Your task to perform on an android device: Search for Mexican restaurants on Maps Image 0: 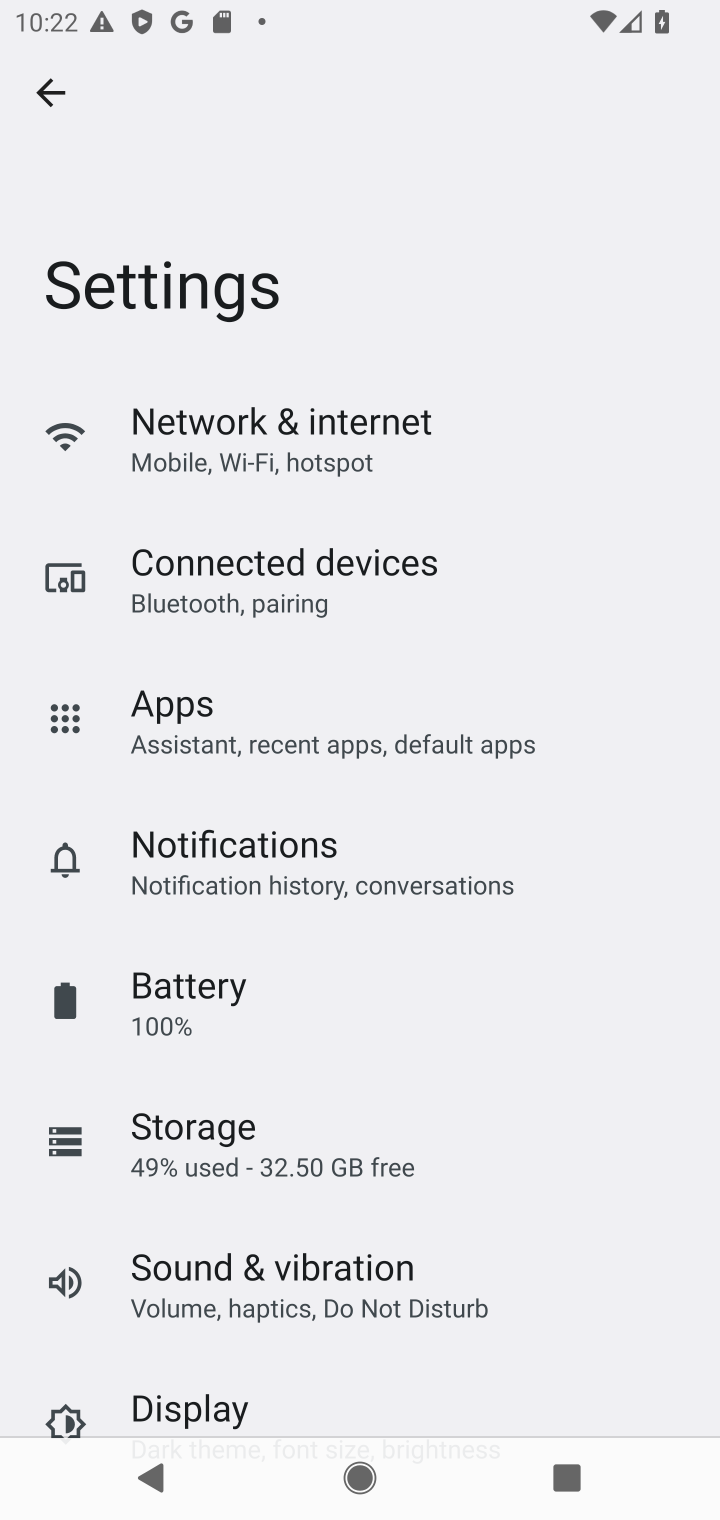
Step 0: press home button
Your task to perform on an android device: Search for Mexican restaurants on Maps Image 1: 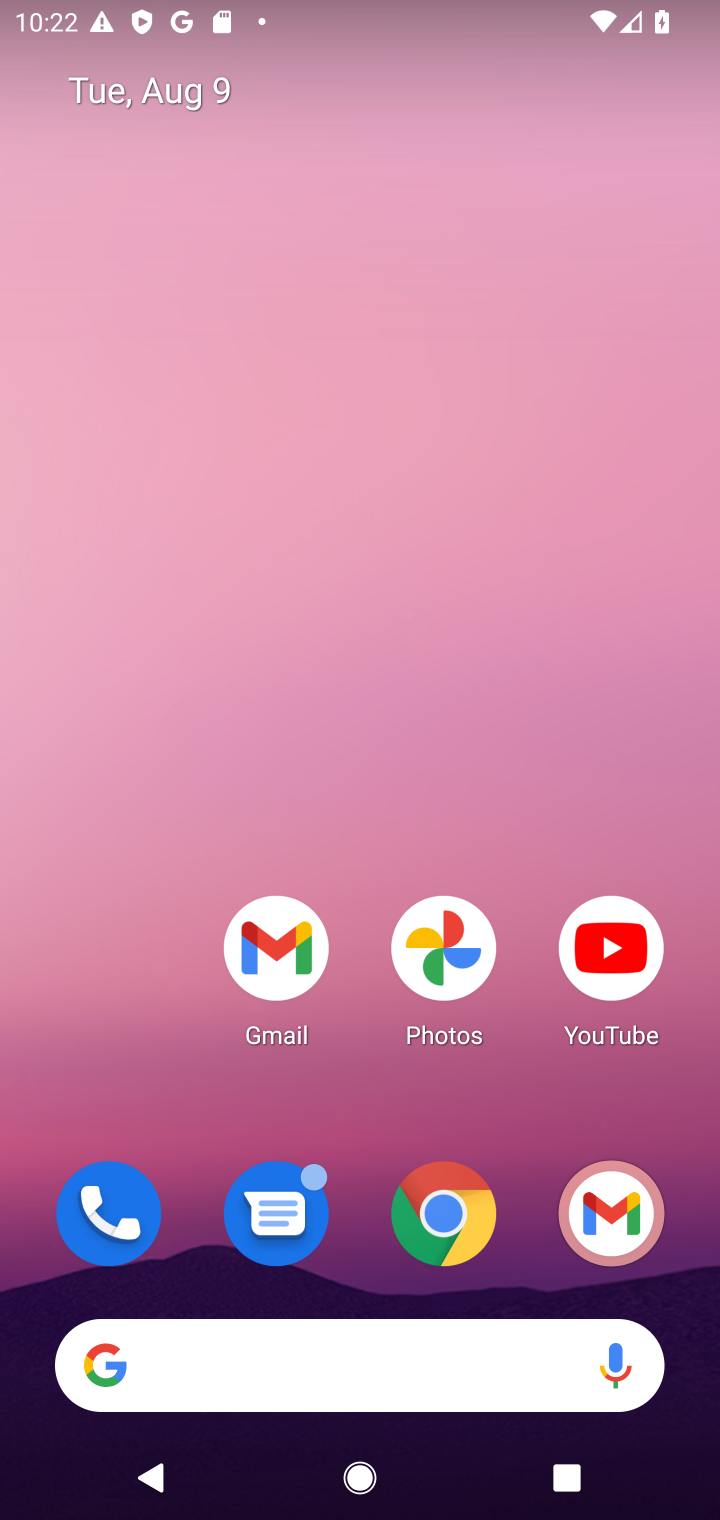
Step 1: drag from (408, 1279) to (376, 308)
Your task to perform on an android device: Search for Mexican restaurants on Maps Image 2: 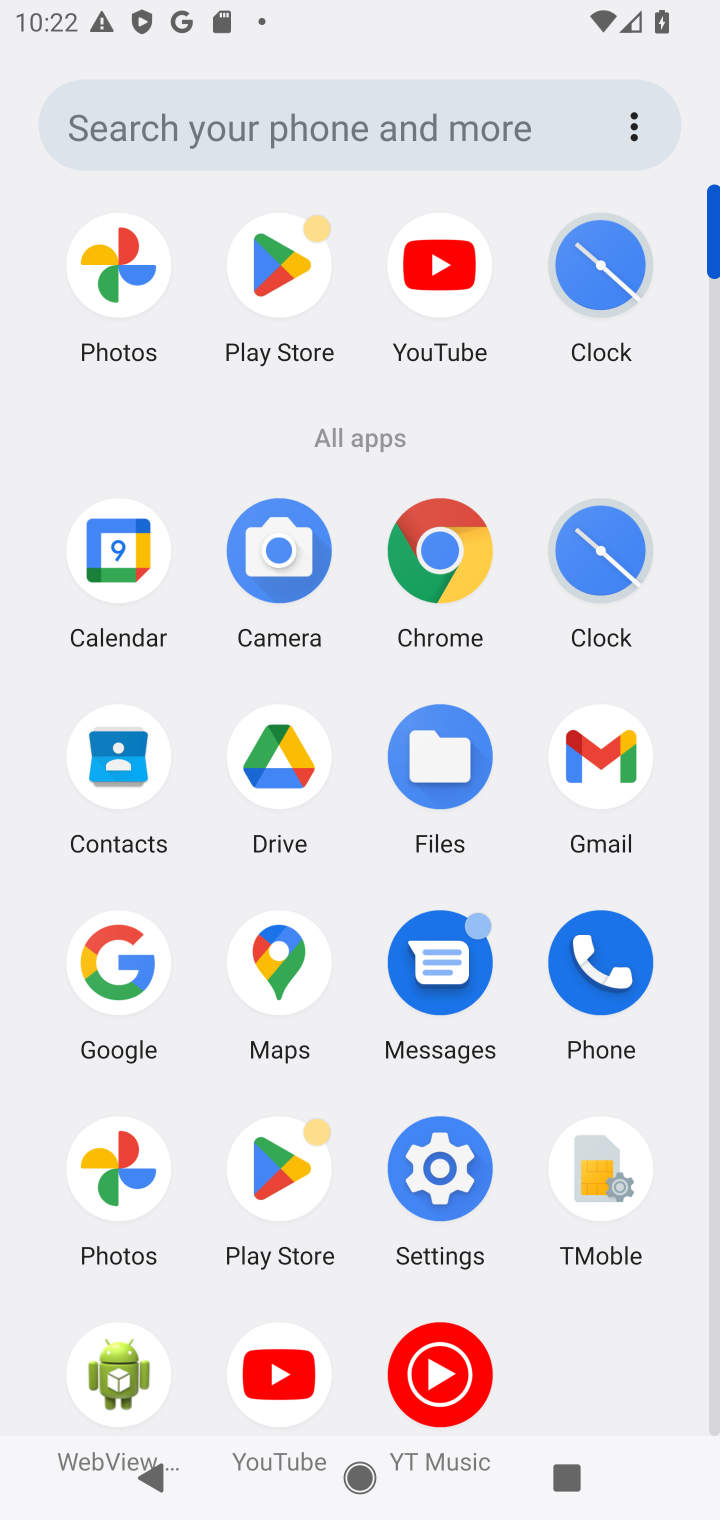
Step 2: click (292, 954)
Your task to perform on an android device: Search for Mexican restaurants on Maps Image 3: 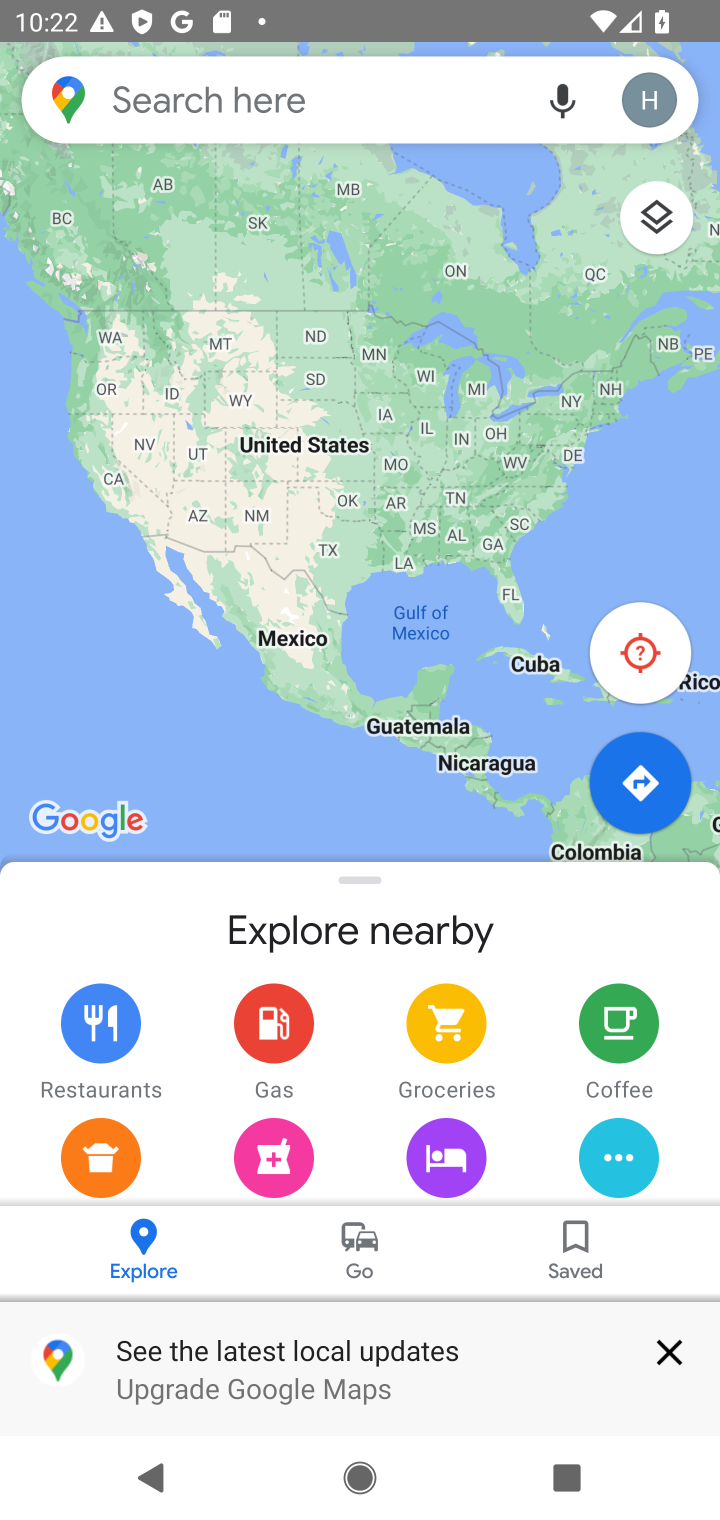
Step 3: click (190, 112)
Your task to perform on an android device: Search for Mexican restaurants on Maps Image 4: 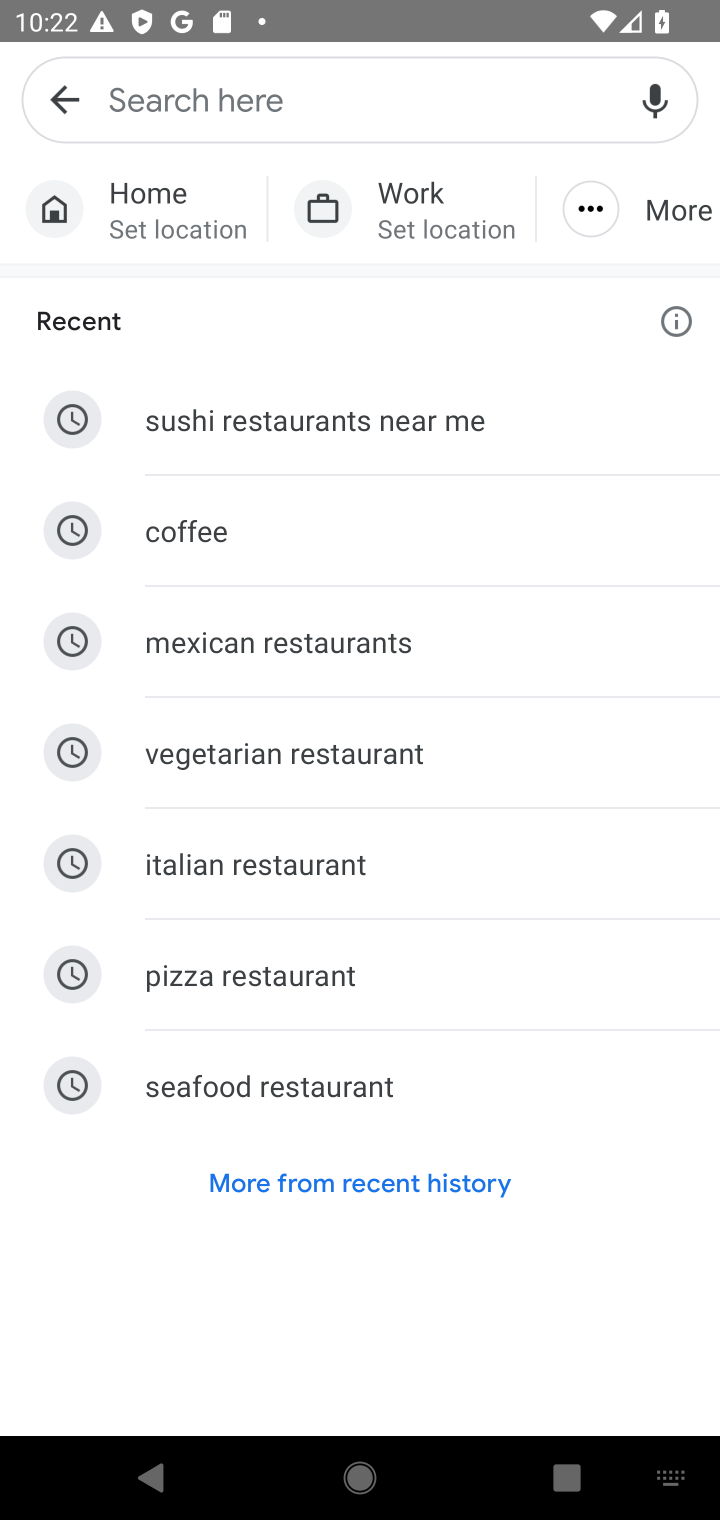
Step 4: click (207, 650)
Your task to perform on an android device: Search for Mexican restaurants on Maps Image 5: 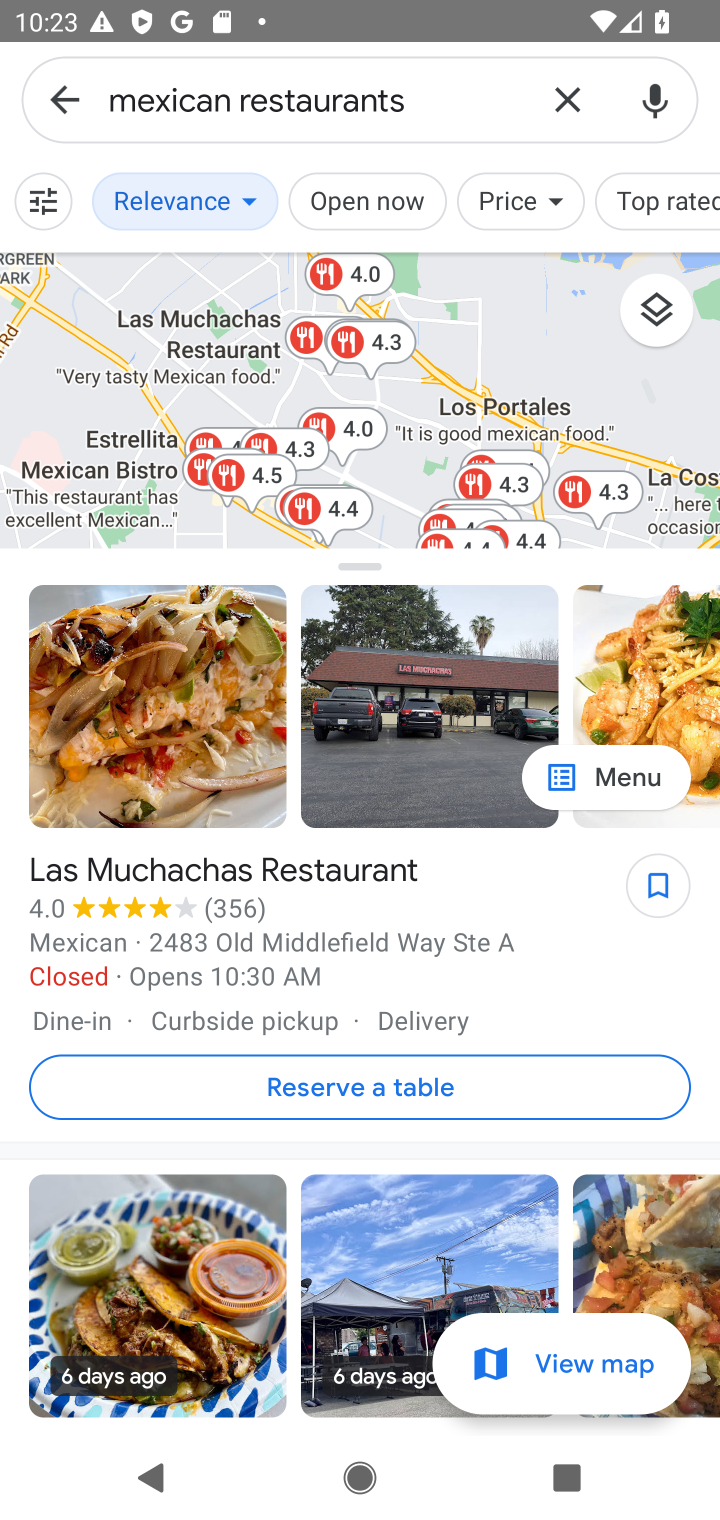
Step 5: task complete